Your task to perform on an android device: Search for vegetarian restaurants on Maps Image 0: 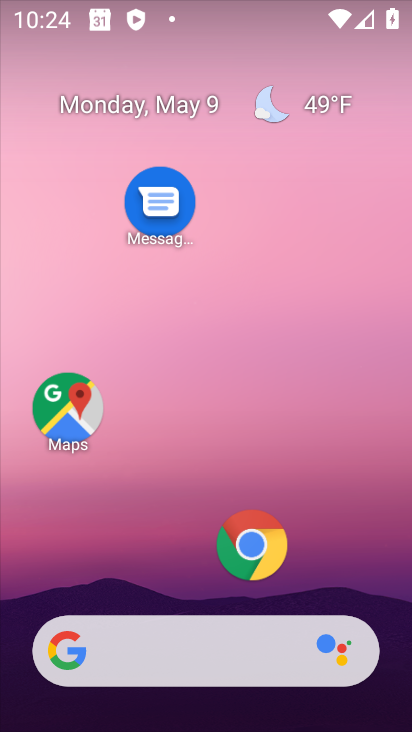
Step 0: drag from (132, 604) to (191, 51)
Your task to perform on an android device: Search for vegetarian restaurants on Maps Image 1: 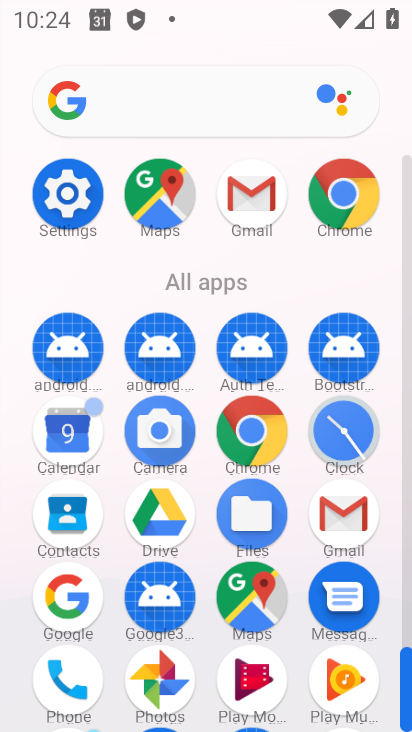
Step 1: click (236, 586)
Your task to perform on an android device: Search for vegetarian restaurants on Maps Image 2: 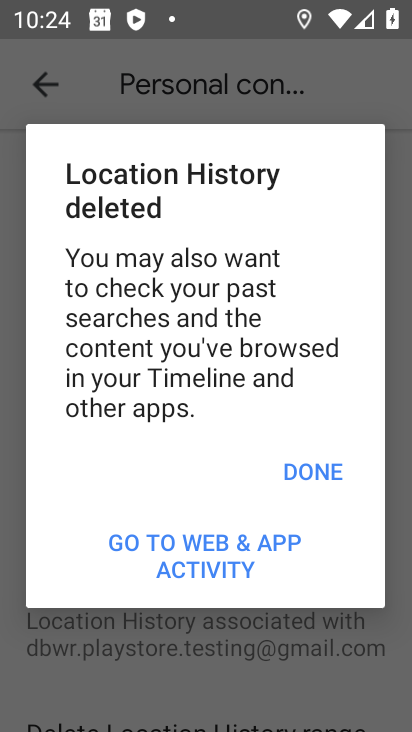
Step 2: press back button
Your task to perform on an android device: Search for vegetarian restaurants on Maps Image 3: 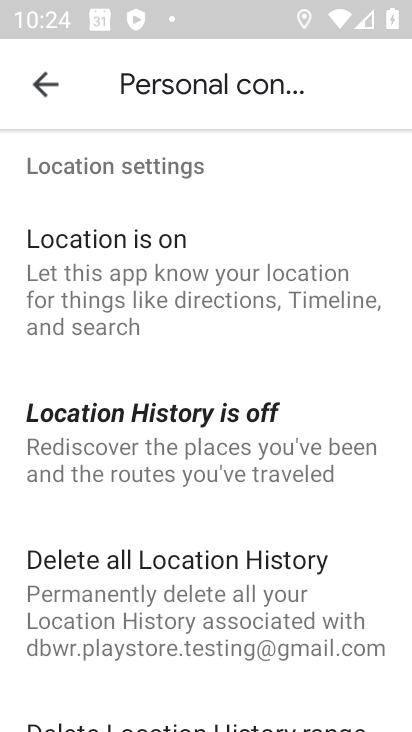
Step 3: press back button
Your task to perform on an android device: Search for vegetarian restaurants on Maps Image 4: 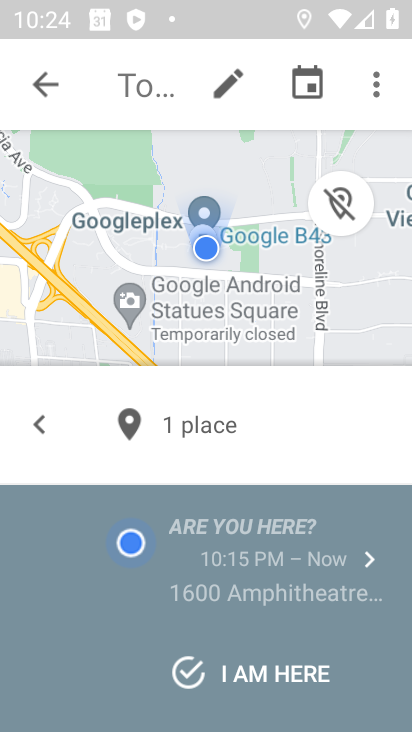
Step 4: press back button
Your task to perform on an android device: Search for vegetarian restaurants on Maps Image 5: 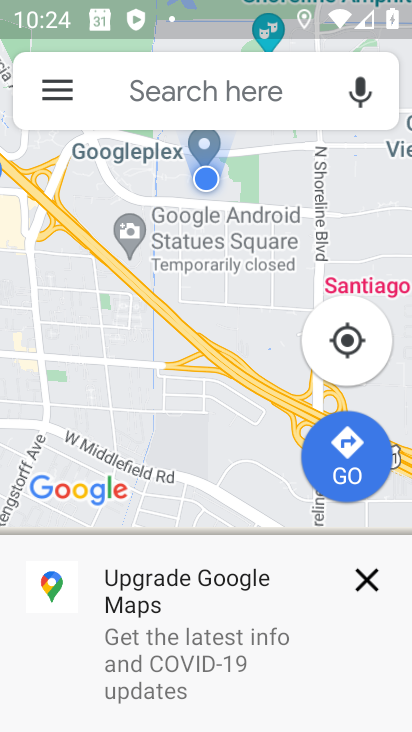
Step 5: click (213, 94)
Your task to perform on an android device: Search for vegetarian restaurants on Maps Image 6: 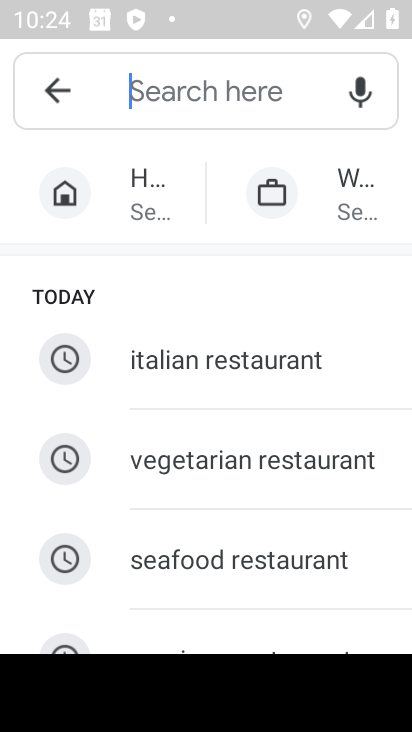
Step 6: type "vegetarian restaurant"
Your task to perform on an android device: Search for vegetarian restaurants on Maps Image 7: 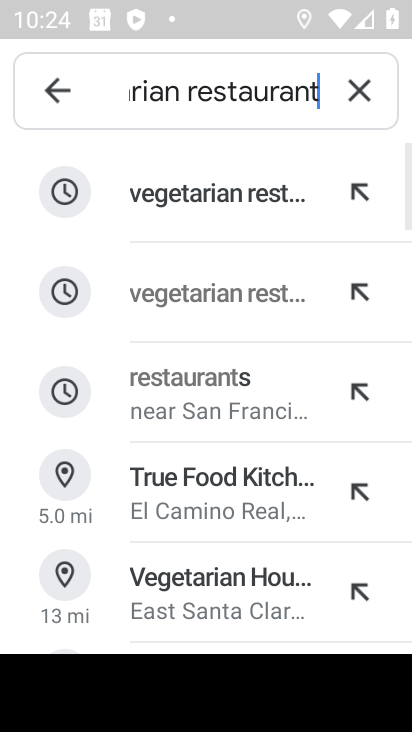
Step 7: click (218, 176)
Your task to perform on an android device: Search for vegetarian restaurants on Maps Image 8: 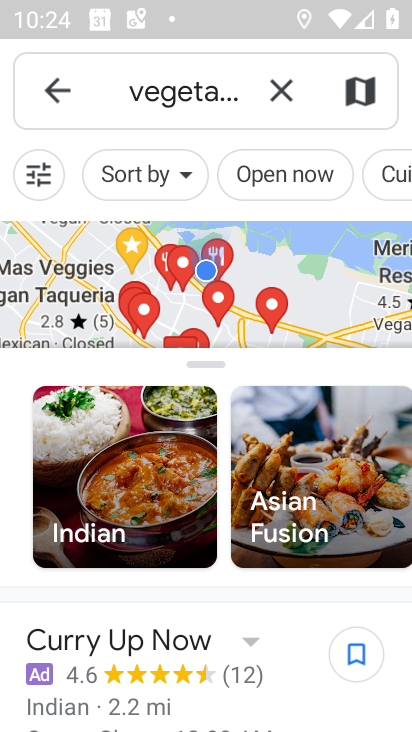
Step 8: task complete